Your task to perform on an android device: What's the weather going to be this weekend? Image 0: 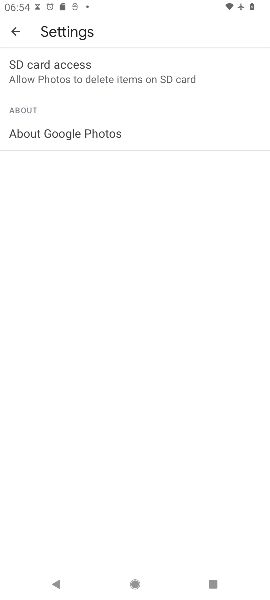
Step 0: press home button
Your task to perform on an android device: What's the weather going to be this weekend? Image 1: 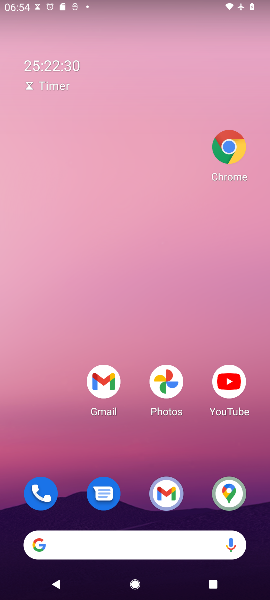
Step 1: click (251, 43)
Your task to perform on an android device: What's the weather going to be this weekend? Image 2: 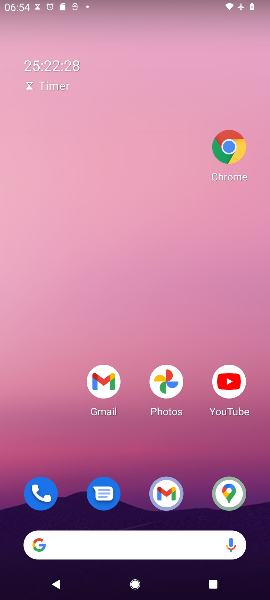
Step 2: click (40, 550)
Your task to perform on an android device: What's the weather going to be this weekend? Image 3: 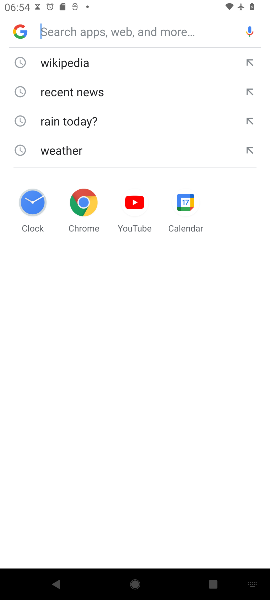
Step 3: type " weather going to be this weekend?"
Your task to perform on an android device: What's the weather going to be this weekend? Image 4: 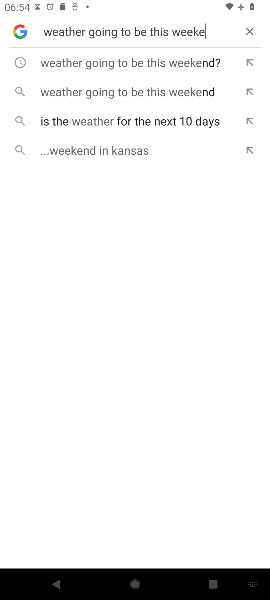
Step 4: press enter
Your task to perform on an android device: What's the weather going to be this weekend? Image 5: 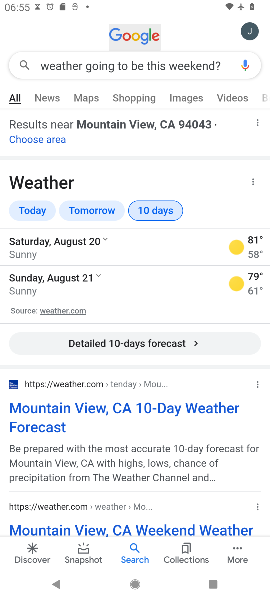
Step 5: task complete